Your task to perform on an android device: move a message to another label in the gmail app Image 0: 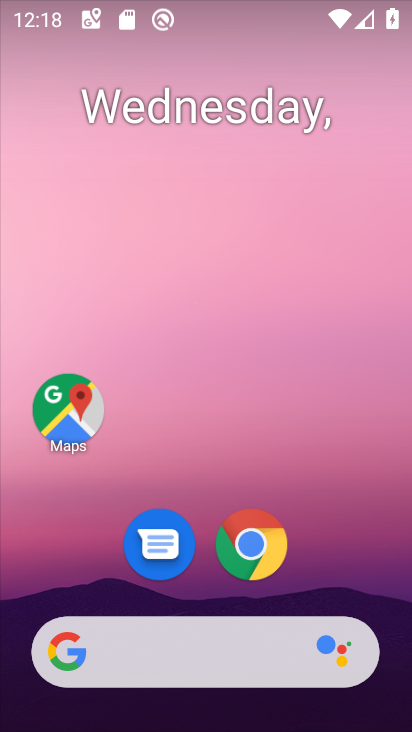
Step 0: drag from (153, 465) to (250, 203)
Your task to perform on an android device: move a message to another label in the gmail app Image 1: 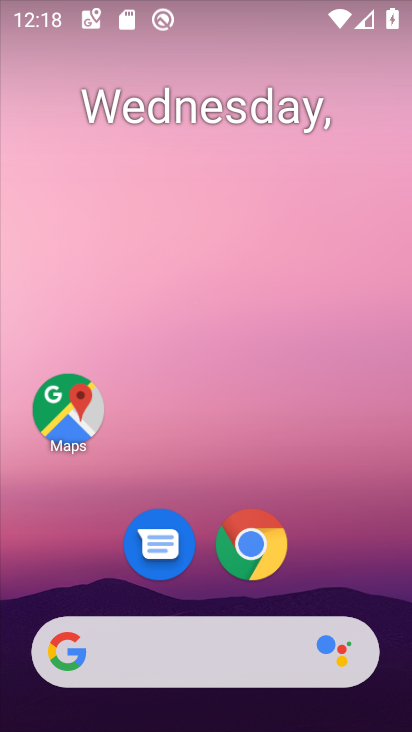
Step 1: drag from (219, 466) to (230, 105)
Your task to perform on an android device: move a message to another label in the gmail app Image 2: 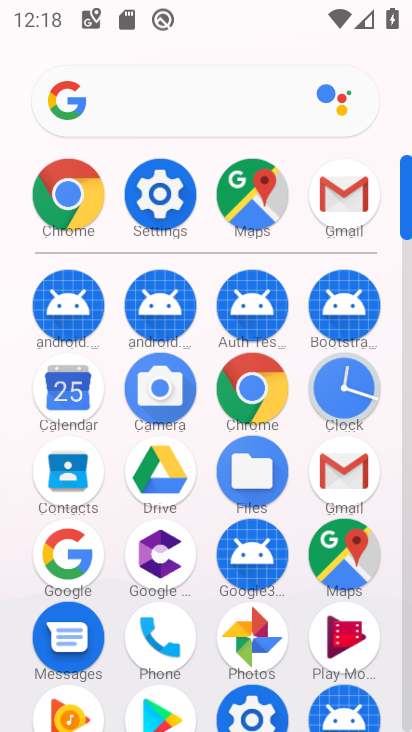
Step 2: click (339, 482)
Your task to perform on an android device: move a message to another label in the gmail app Image 3: 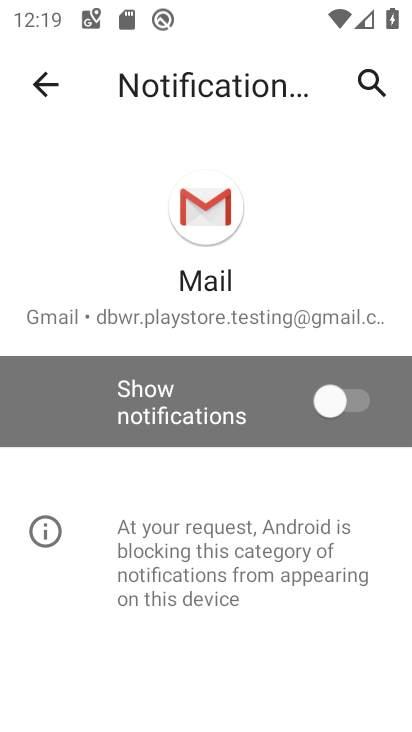
Step 3: drag from (192, 535) to (206, 262)
Your task to perform on an android device: move a message to another label in the gmail app Image 4: 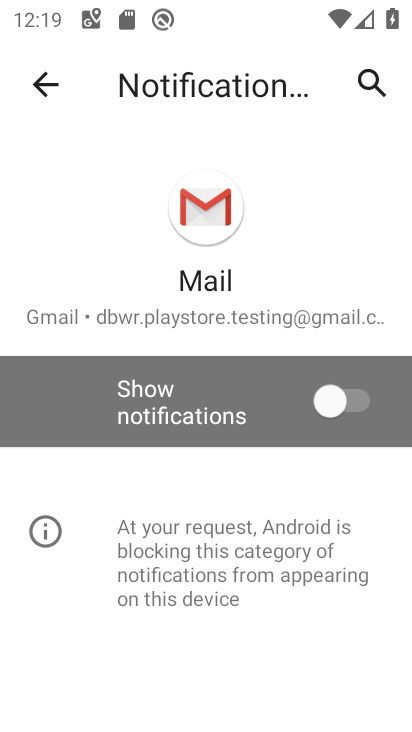
Step 4: press home button
Your task to perform on an android device: move a message to another label in the gmail app Image 5: 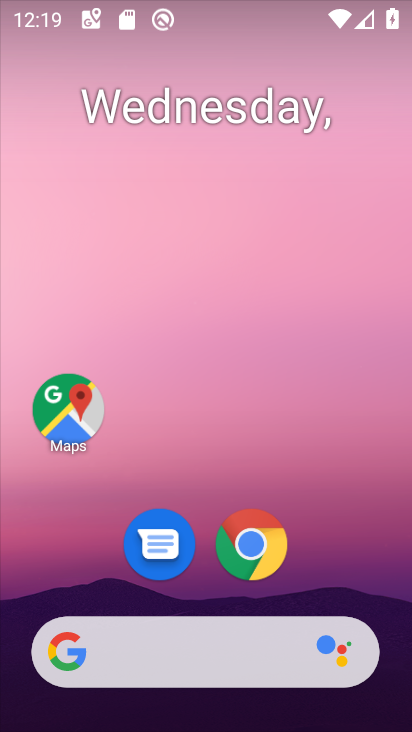
Step 5: drag from (290, 463) to (267, 130)
Your task to perform on an android device: move a message to another label in the gmail app Image 6: 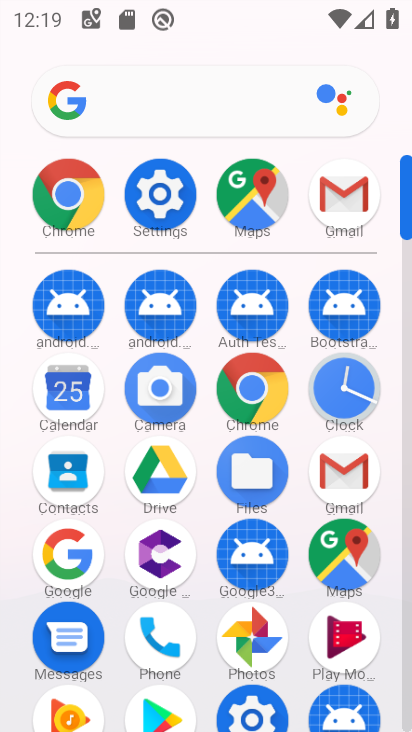
Step 6: click (333, 473)
Your task to perform on an android device: move a message to another label in the gmail app Image 7: 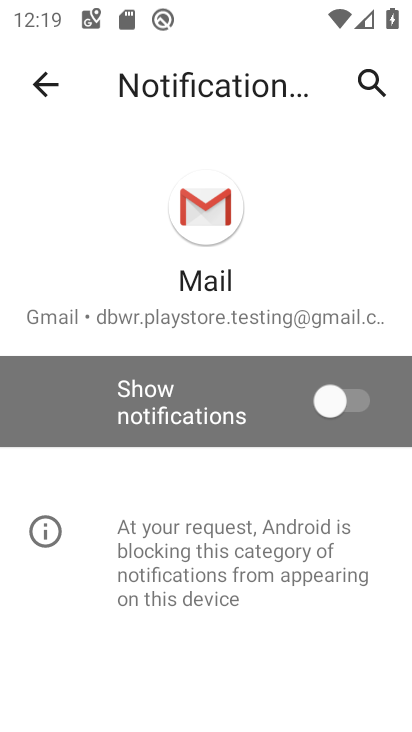
Step 7: click (37, 105)
Your task to perform on an android device: move a message to another label in the gmail app Image 8: 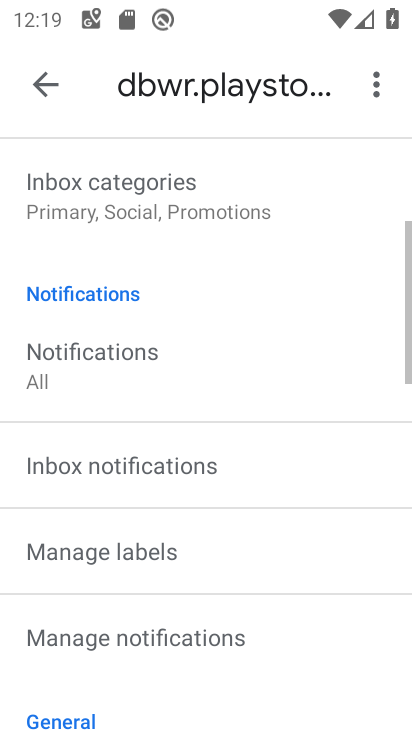
Step 8: click (37, 105)
Your task to perform on an android device: move a message to another label in the gmail app Image 9: 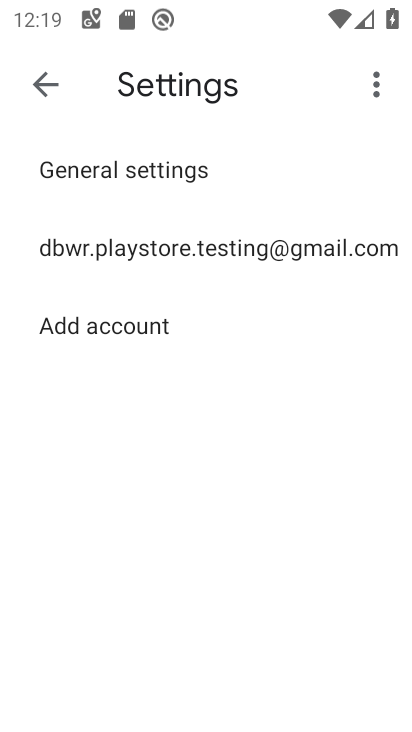
Step 9: click (36, 104)
Your task to perform on an android device: move a message to another label in the gmail app Image 10: 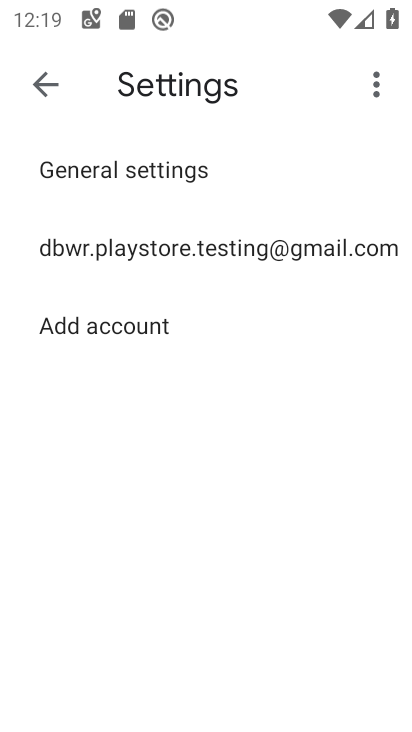
Step 10: click (45, 101)
Your task to perform on an android device: move a message to another label in the gmail app Image 11: 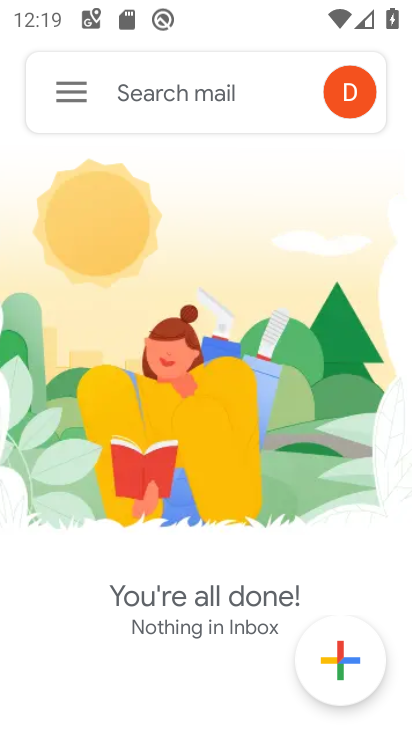
Step 11: click (80, 104)
Your task to perform on an android device: move a message to another label in the gmail app Image 12: 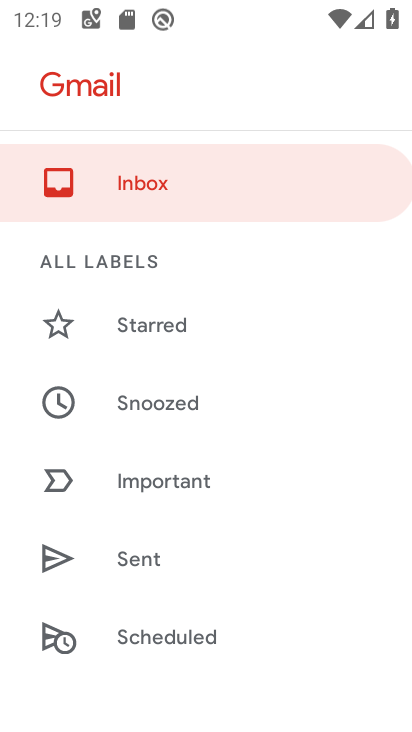
Step 12: drag from (204, 530) to (204, 199)
Your task to perform on an android device: move a message to another label in the gmail app Image 13: 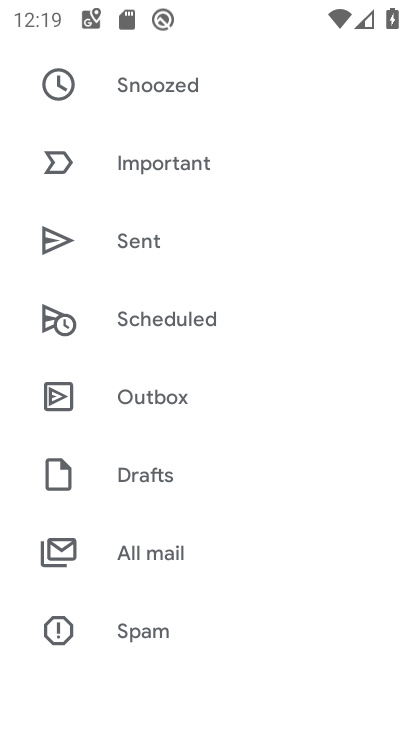
Step 13: drag from (171, 579) to (174, 426)
Your task to perform on an android device: move a message to another label in the gmail app Image 14: 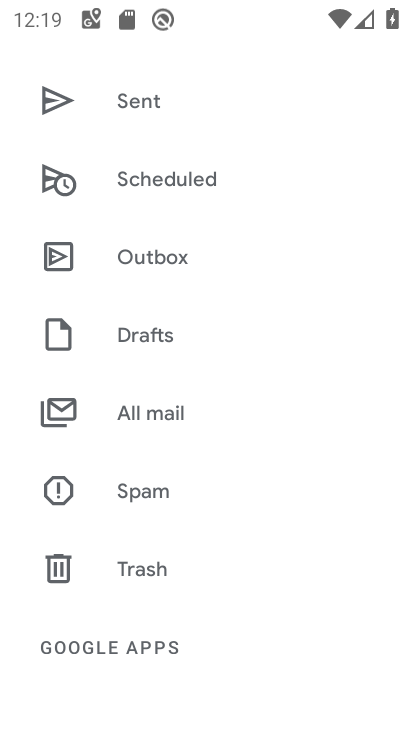
Step 14: click (169, 429)
Your task to perform on an android device: move a message to another label in the gmail app Image 15: 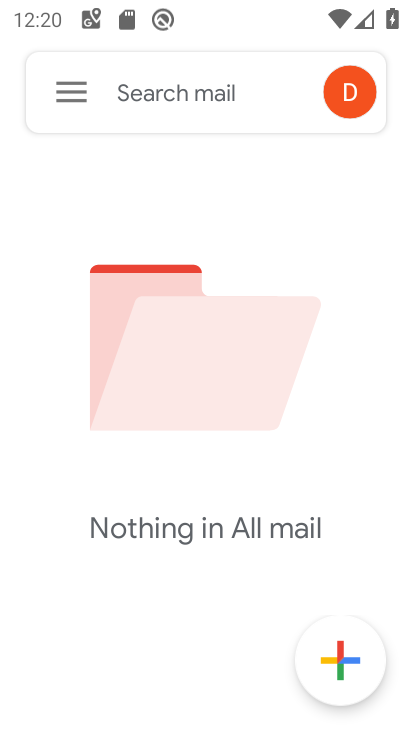
Step 15: task complete